Your task to perform on an android device: turn pop-ups on in chrome Image 0: 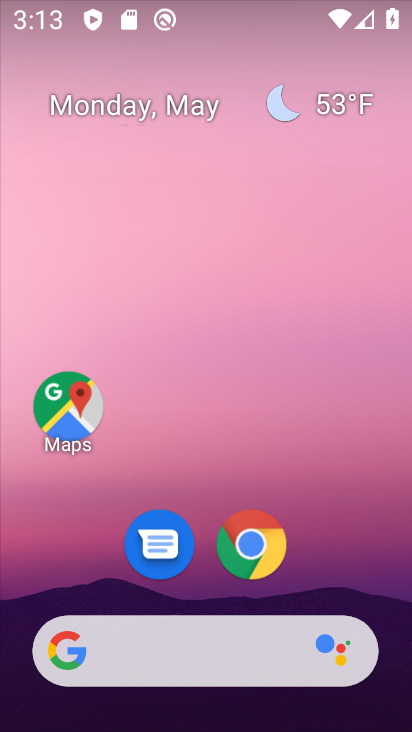
Step 0: click (253, 564)
Your task to perform on an android device: turn pop-ups on in chrome Image 1: 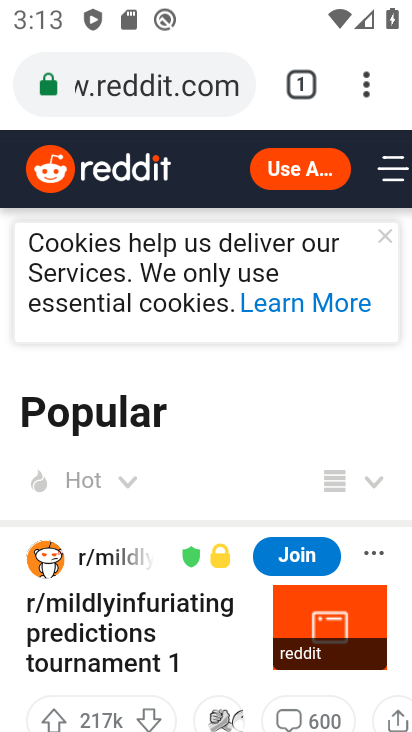
Step 1: click (366, 94)
Your task to perform on an android device: turn pop-ups on in chrome Image 2: 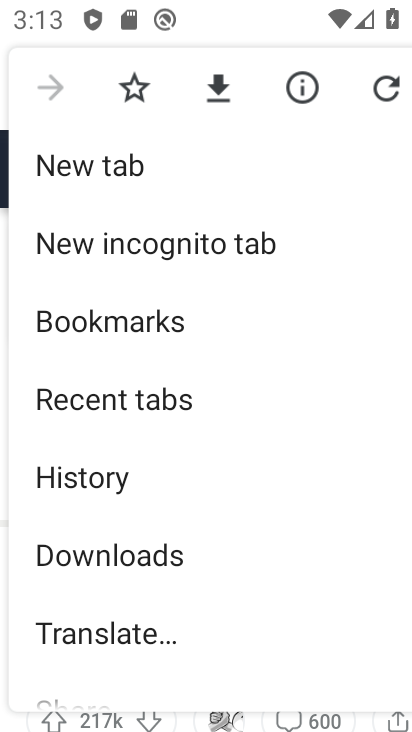
Step 2: drag from (182, 608) to (174, 226)
Your task to perform on an android device: turn pop-ups on in chrome Image 3: 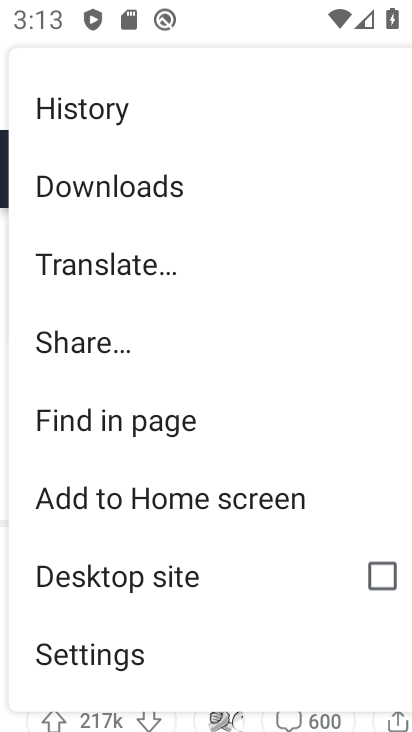
Step 3: click (122, 662)
Your task to perform on an android device: turn pop-ups on in chrome Image 4: 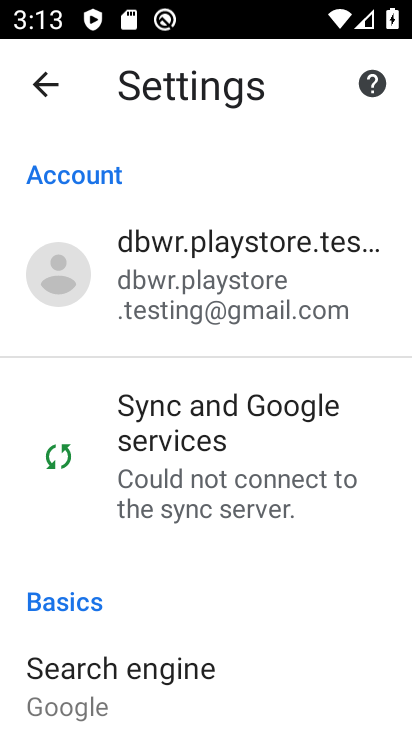
Step 4: drag from (244, 623) to (222, 205)
Your task to perform on an android device: turn pop-ups on in chrome Image 5: 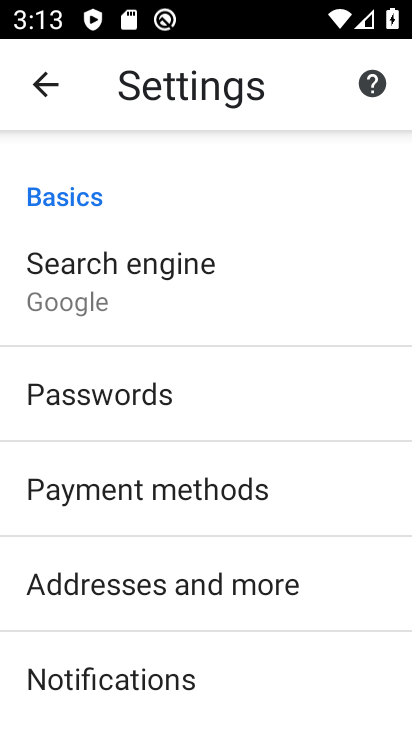
Step 5: drag from (222, 661) to (220, 253)
Your task to perform on an android device: turn pop-ups on in chrome Image 6: 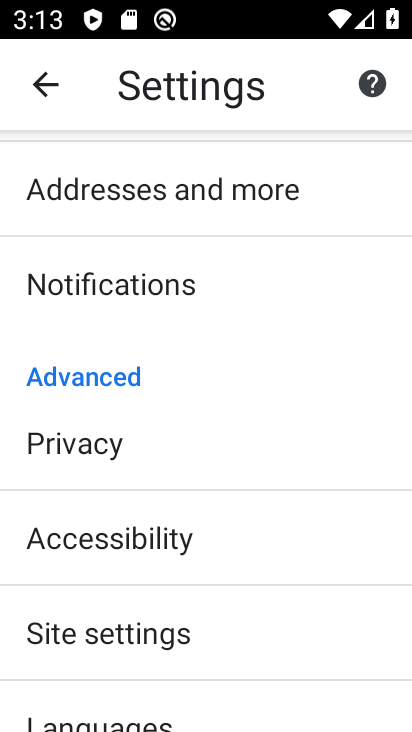
Step 6: click (169, 634)
Your task to perform on an android device: turn pop-ups on in chrome Image 7: 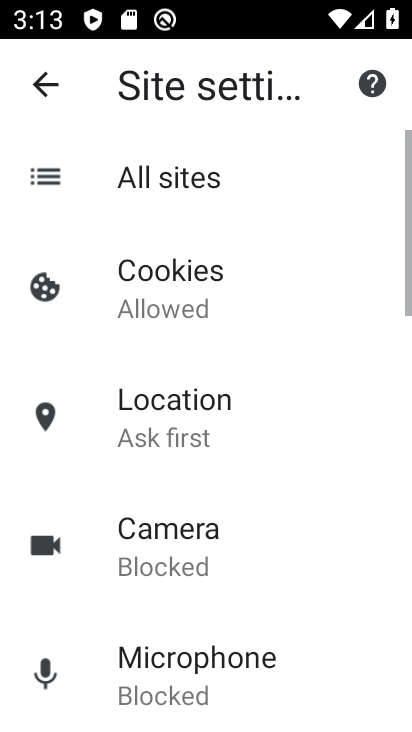
Step 7: drag from (295, 616) to (307, 227)
Your task to perform on an android device: turn pop-ups on in chrome Image 8: 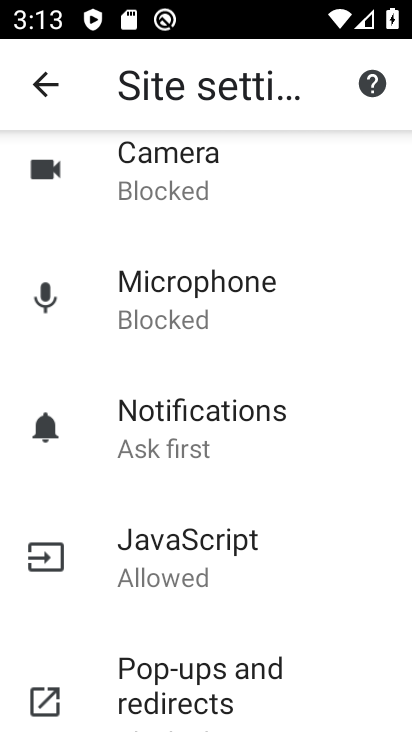
Step 8: click (222, 687)
Your task to perform on an android device: turn pop-ups on in chrome Image 9: 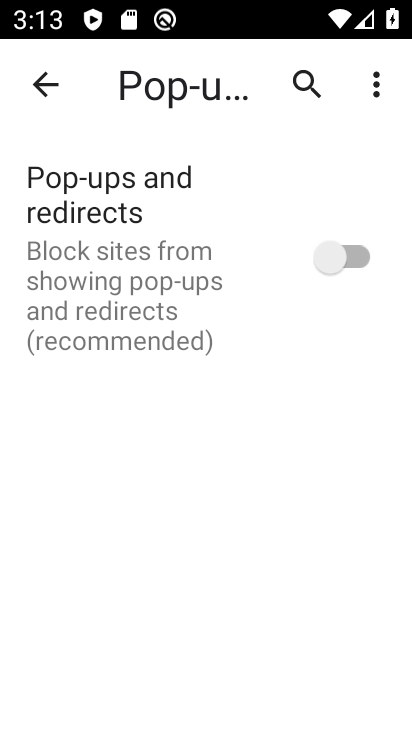
Step 9: click (365, 254)
Your task to perform on an android device: turn pop-ups on in chrome Image 10: 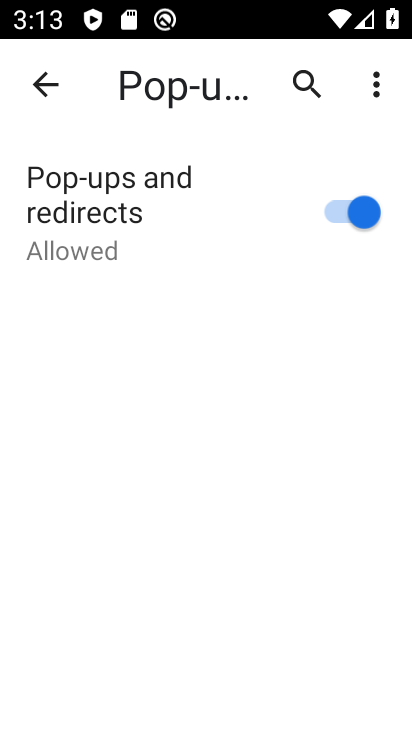
Step 10: task complete